Your task to perform on an android device: Open the stopwatch Image 0: 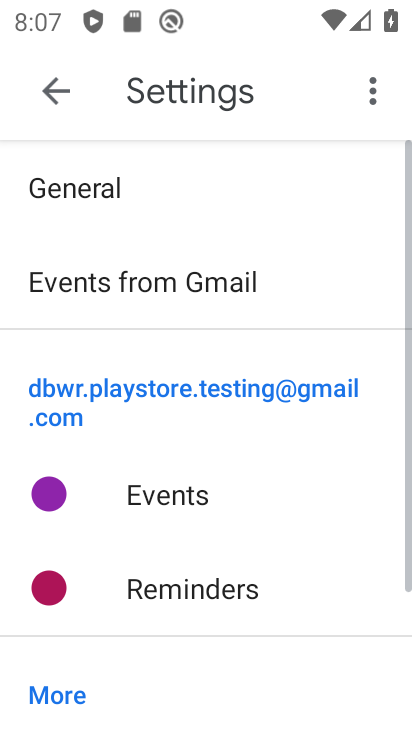
Step 0: click (262, 519)
Your task to perform on an android device: Open the stopwatch Image 1: 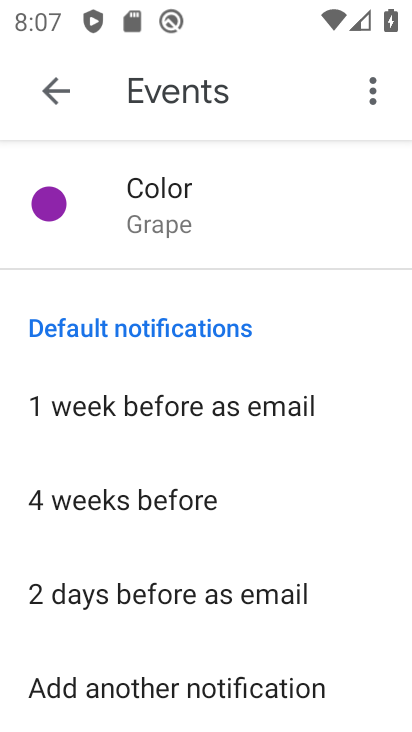
Step 1: press home button
Your task to perform on an android device: Open the stopwatch Image 2: 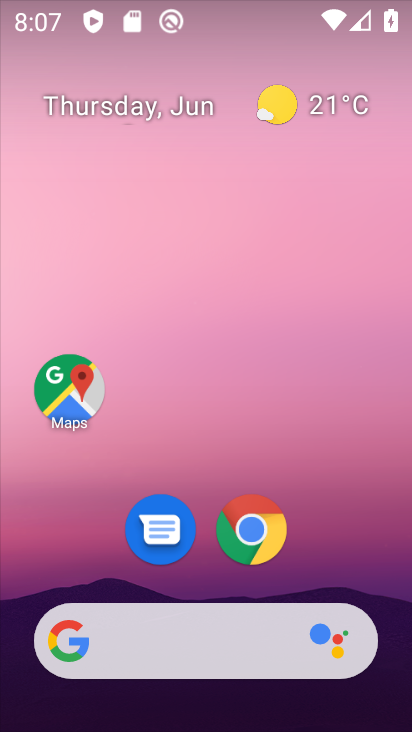
Step 2: drag from (324, 514) to (226, 19)
Your task to perform on an android device: Open the stopwatch Image 3: 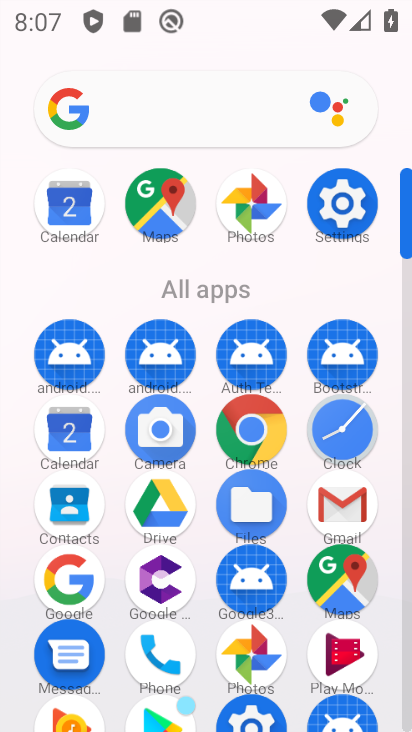
Step 3: click (347, 419)
Your task to perform on an android device: Open the stopwatch Image 4: 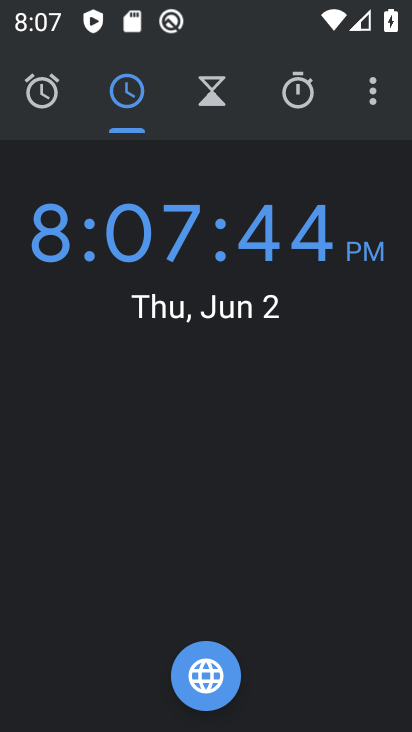
Step 4: click (304, 93)
Your task to perform on an android device: Open the stopwatch Image 5: 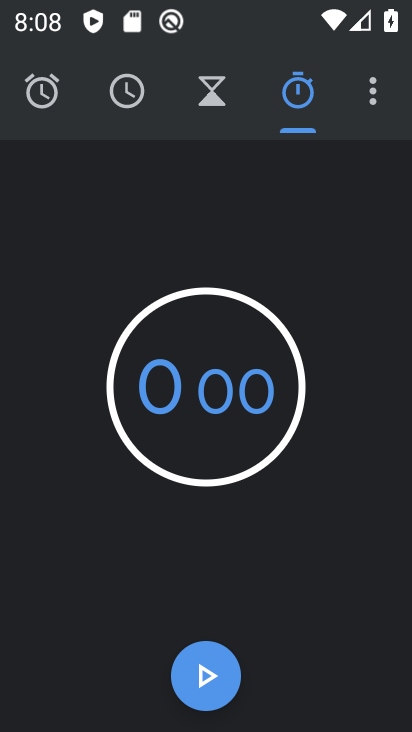
Step 5: task complete